Your task to perform on an android device: Open Youtube and go to "Your channel" Image 0: 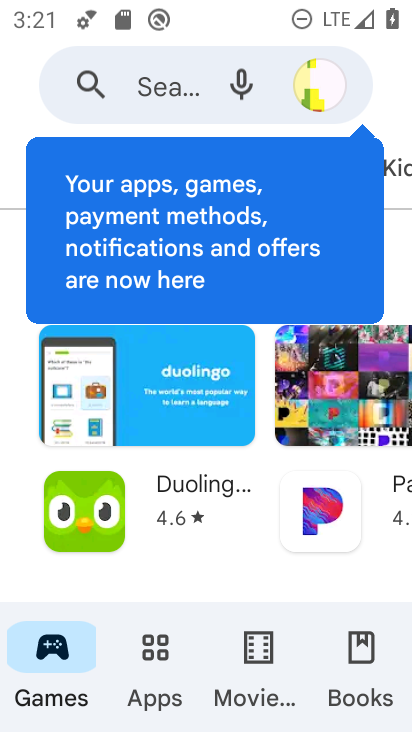
Step 0: press home button
Your task to perform on an android device: Open Youtube and go to "Your channel" Image 1: 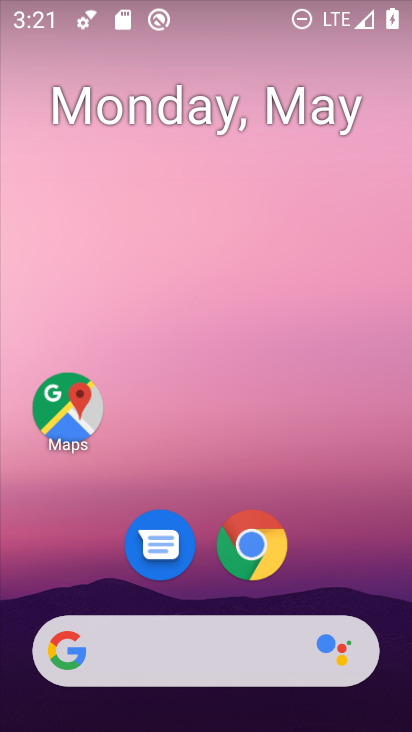
Step 1: drag from (340, 577) to (340, 178)
Your task to perform on an android device: Open Youtube and go to "Your channel" Image 2: 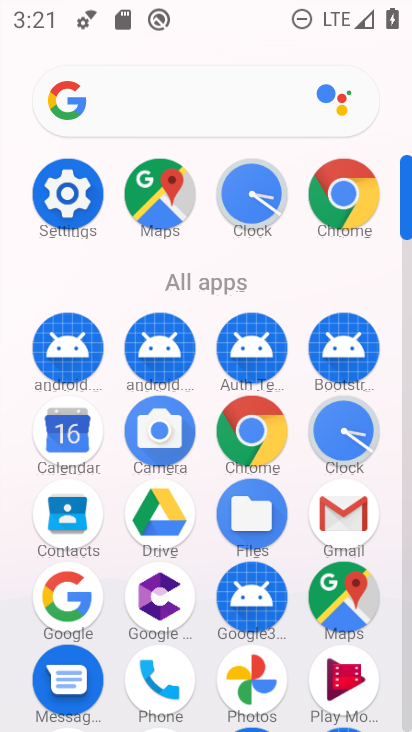
Step 2: drag from (276, 604) to (286, 244)
Your task to perform on an android device: Open Youtube and go to "Your channel" Image 3: 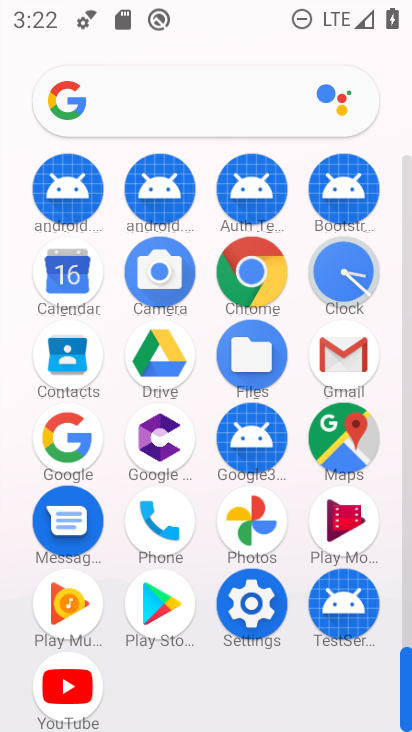
Step 3: click (81, 667)
Your task to perform on an android device: Open Youtube and go to "Your channel" Image 4: 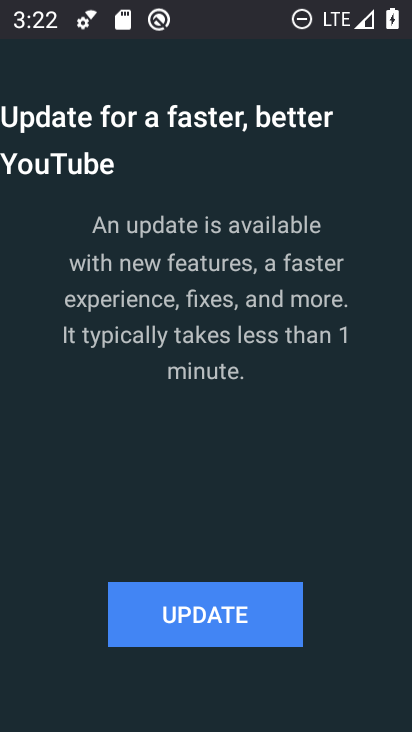
Step 4: click (191, 620)
Your task to perform on an android device: Open Youtube and go to "Your channel" Image 5: 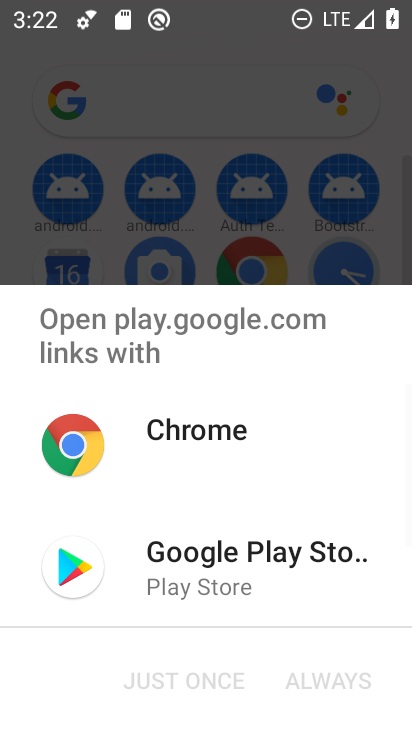
Step 5: click (186, 588)
Your task to perform on an android device: Open Youtube and go to "Your channel" Image 6: 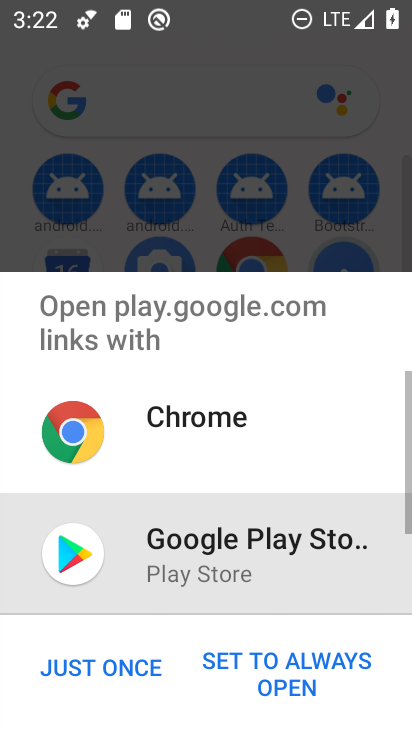
Step 6: click (124, 654)
Your task to perform on an android device: Open Youtube and go to "Your channel" Image 7: 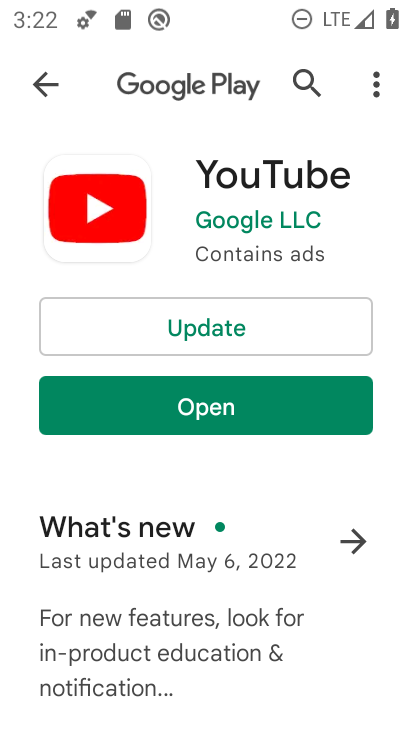
Step 7: click (237, 318)
Your task to perform on an android device: Open Youtube and go to "Your channel" Image 8: 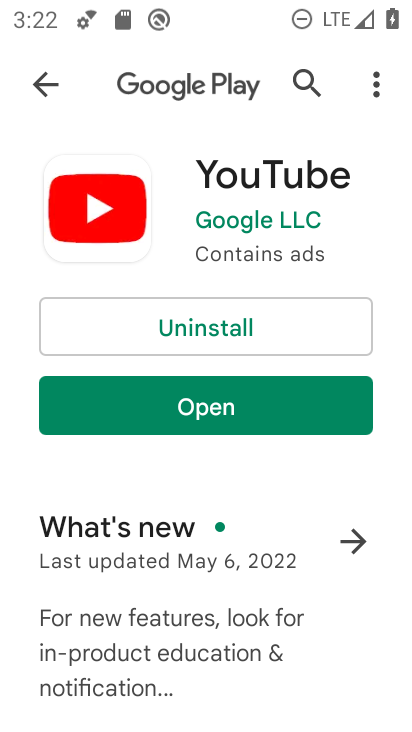
Step 8: click (195, 402)
Your task to perform on an android device: Open Youtube and go to "Your channel" Image 9: 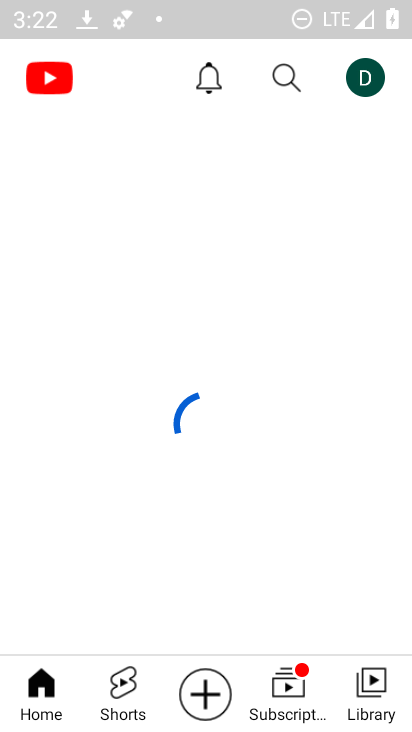
Step 9: click (372, 81)
Your task to perform on an android device: Open Youtube and go to "Your channel" Image 10: 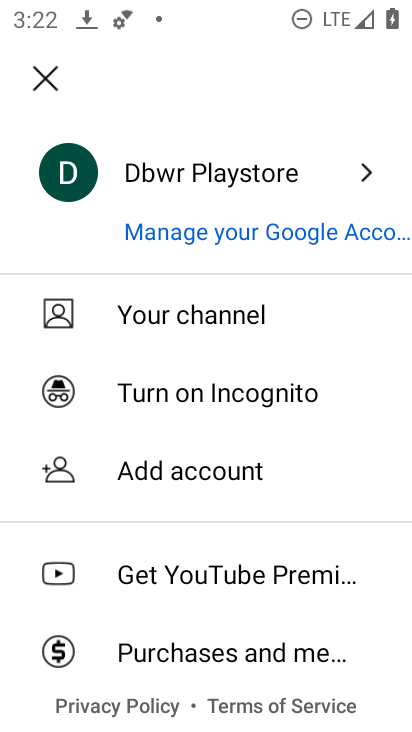
Step 10: click (184, 327)
Your task to perform on an android device: Open Youtube and go to "Your channel" Image 11: 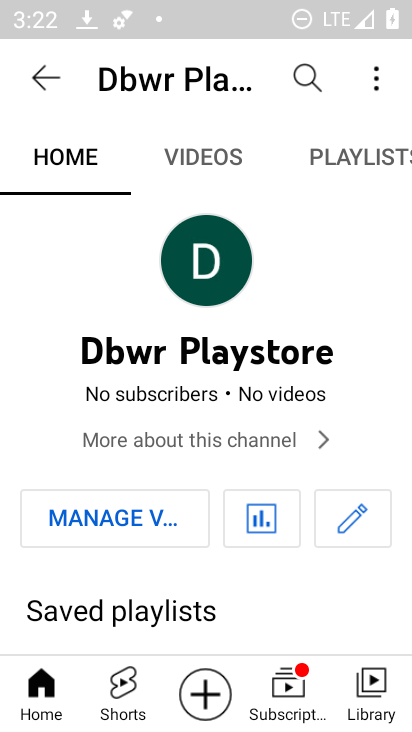
Step 11: task complete